Your task to perform on an android device: empty trash in google photos Image 0: 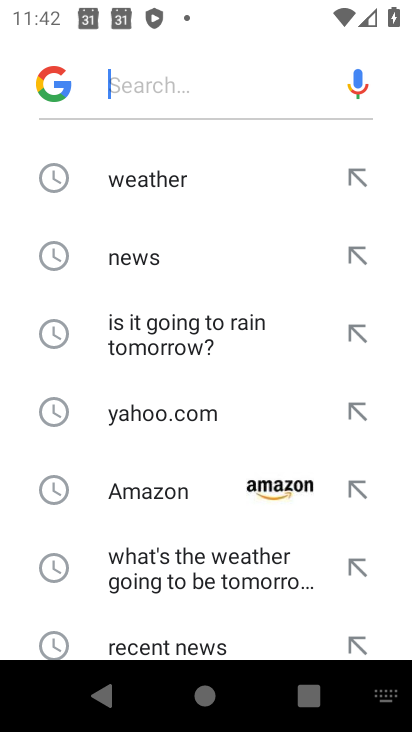
Step 0: press home button
Your task to perform on an android device: empty trash in google photos Image 1: 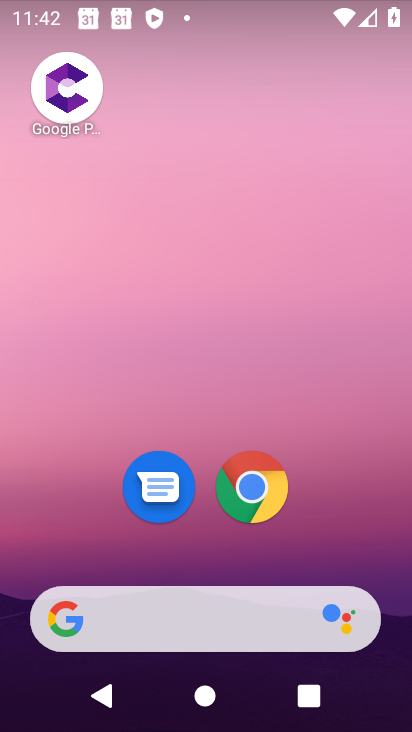
Step 1: drag from (392, 561) to (339, 126)
Your task to perform on an android device: empty trash in google photos Image 2: 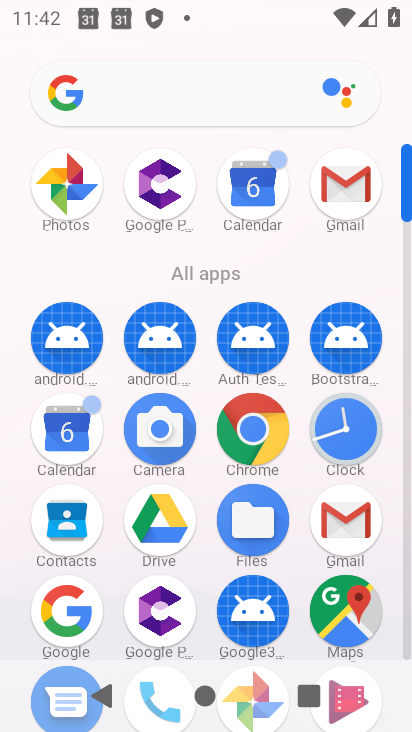
Step 2: click (76, 187)
Your task to perform on an android device: empty trash in google photos Image 3: 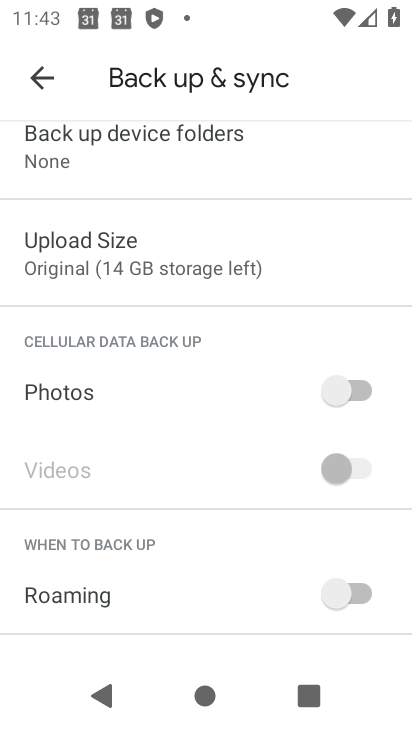
Step 3: click (37, 73)
Your task to perform on an android device: empty trash in google photos Image 4: 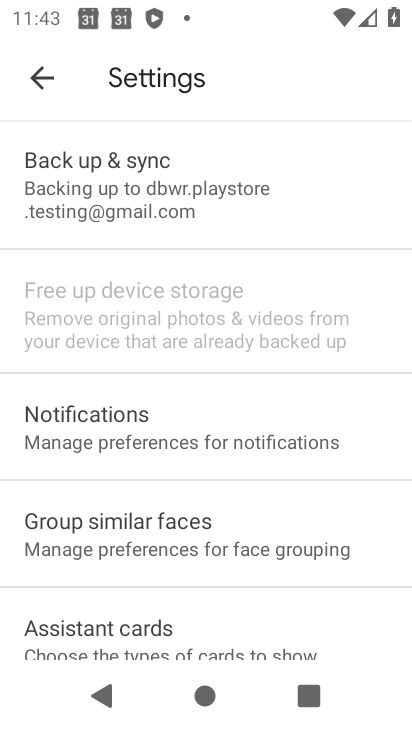
Step 4: click (37, 73)
Your task to perform on an android device: empty trash in google photos Image 5: 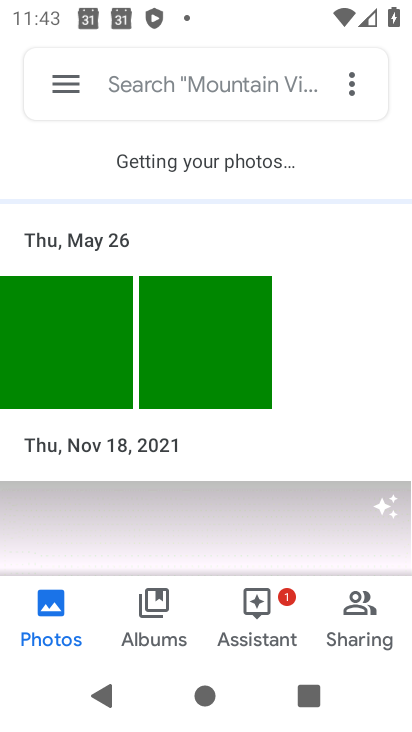
Step 5: click (45, 77)
Your task to perform on an android device: empty trash in google photos Image 6: 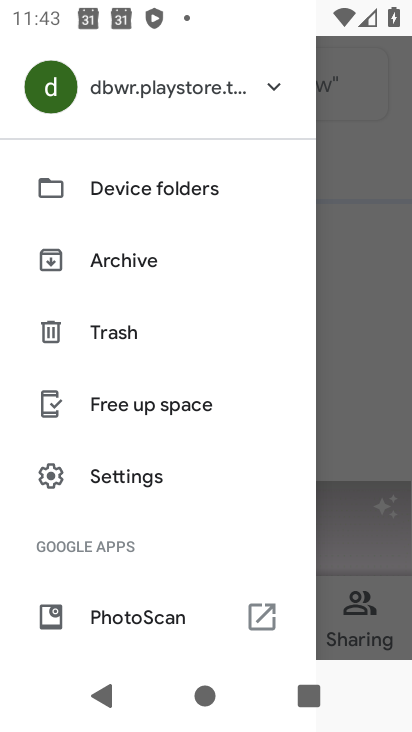
Step 6: click (119, 333)
Your task to perform on an android device: empty trash in google photos Image 7: 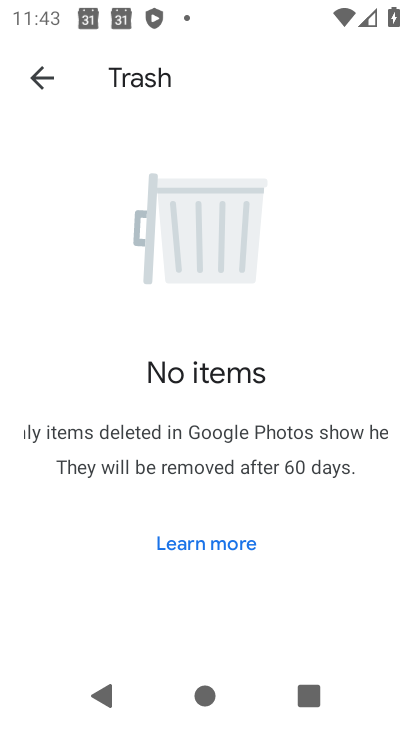
Step 7: task complete